Your task to perform on an android device: choose inbox layout in the gmail app Image 0: 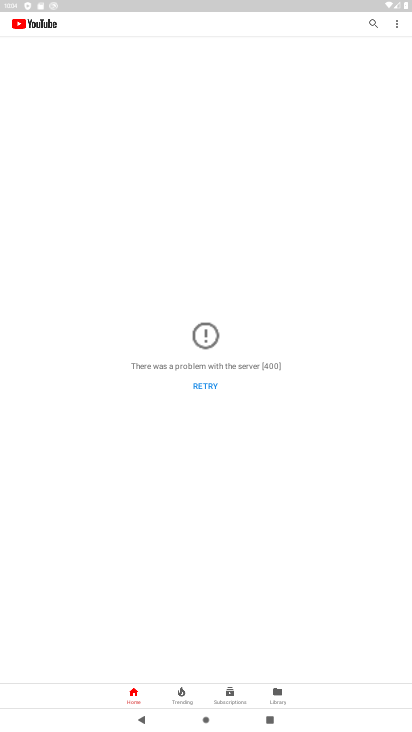
Step 0: press home button
Your task to perform on an android device: choose inbox layout in the gmail app Image 1: 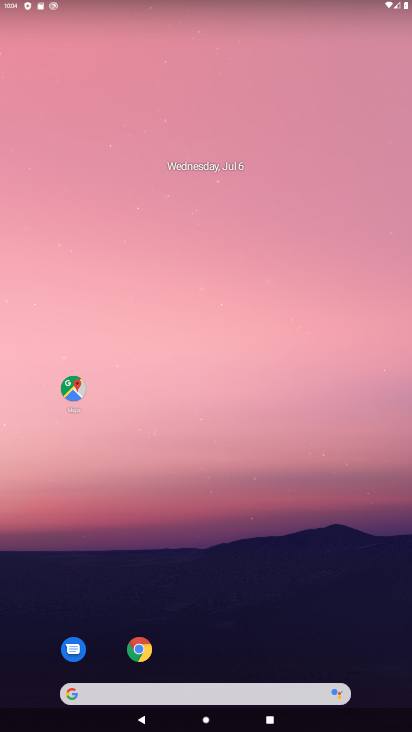
Step 1: click (341, 367)
Your task to perform on an android device: choose inbox layout in the gmail app Image 2: 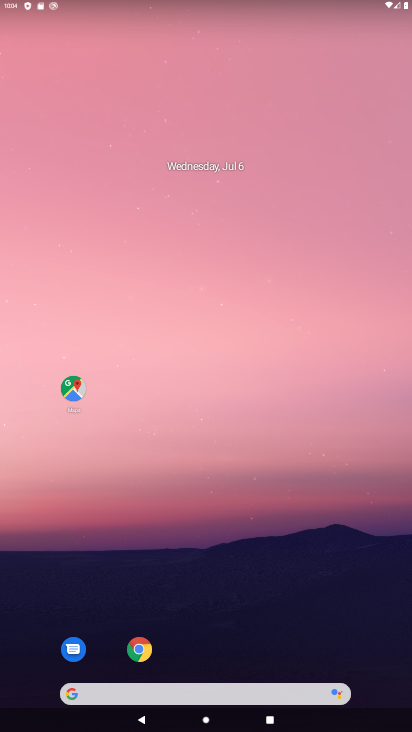
Step 2: drag from (365, 387) to (266, 85)
Your task to perform on an android device: choose inbox layout in the gmail app Image 3: 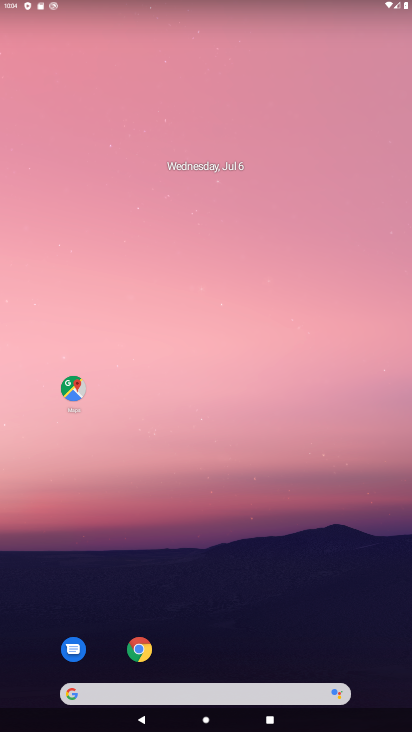
Step 3: drag from (364, 493) to (246, 45)
Your task to perform on an android device: choose inbox layout in the gmail app Image 4: 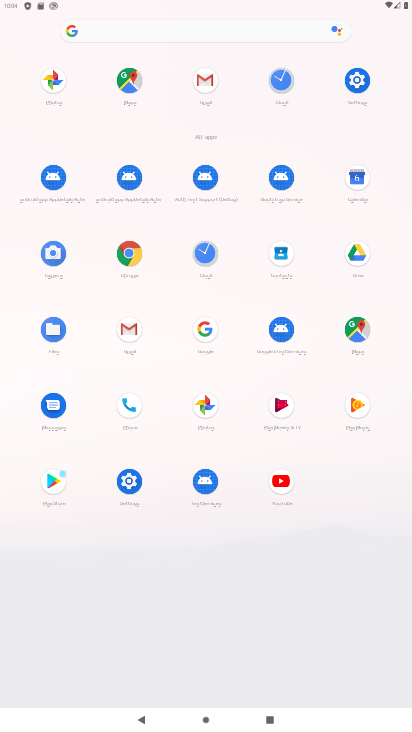
Step 4: click (216, 77)
Your task to perform on an android device: choose inbox layout in the gmail app Image 5: 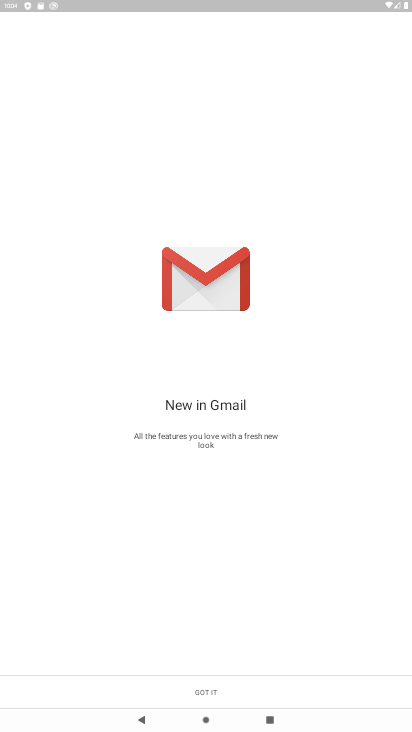
Step 5: click (214, 690)
Your task to perform on an android device: choose inbox layout in the gmail app Image 6: 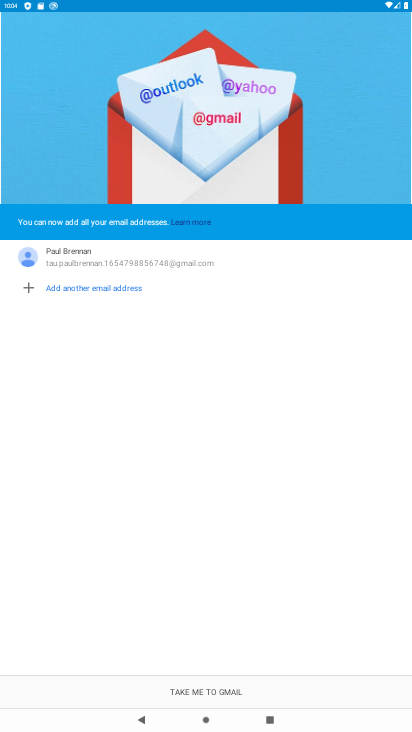
Step 6: click (214, 690)
Your task to perform on an android device: choose inbox layout in the gmail app Image 7: 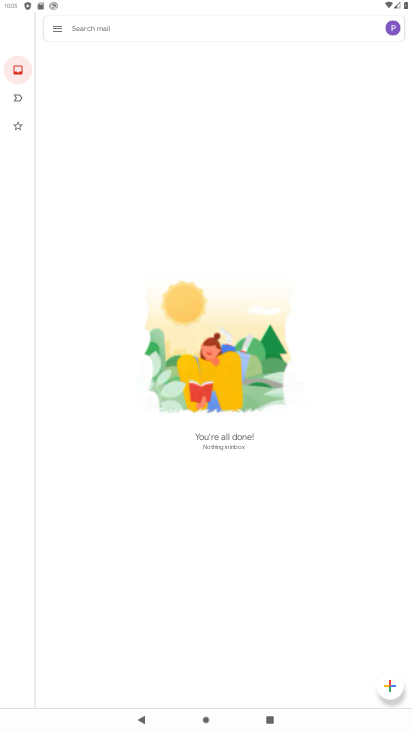
Step 7: click (62, 23)
Your task to perform on an android device: choose inbox layout in the gmail app Image 8: 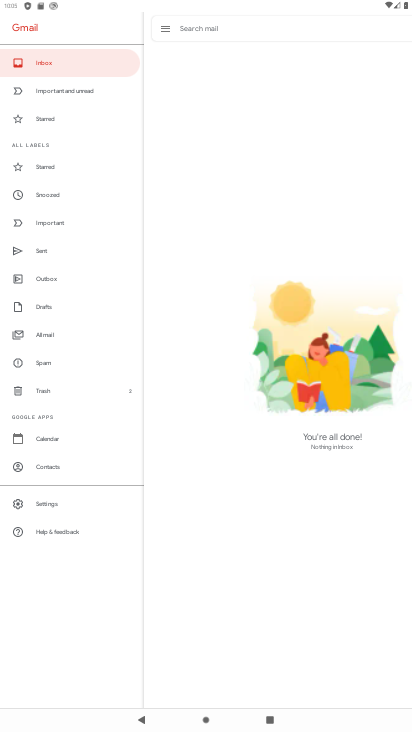
Step 8: click (40, 497)
Your task to perform on an android device: choose inbox layout in the gmail app Image 9: 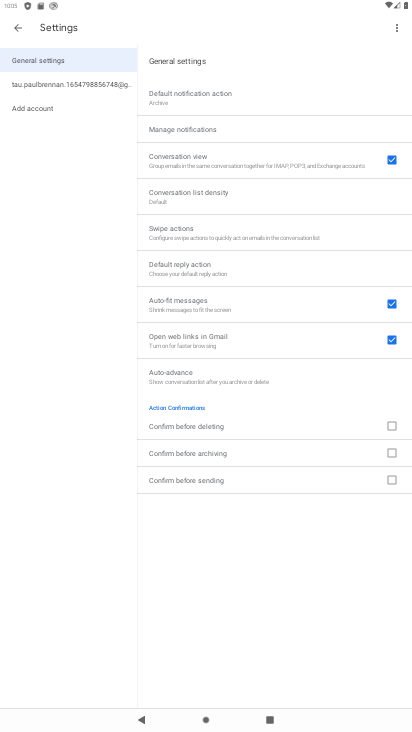
Step 9: click (80, 82)
Your task to perform on an android device: choose inbox layout in the gmail app Image 10: 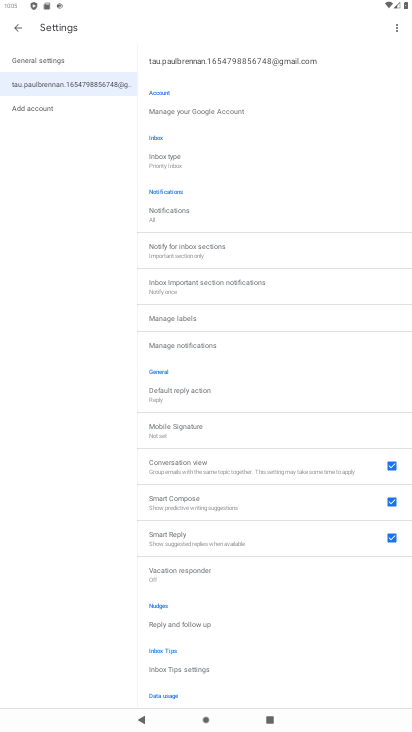
Step 10: click (28, 61)
Your task to perform on an android device: choose inbox layout in the gmail app Image 11: 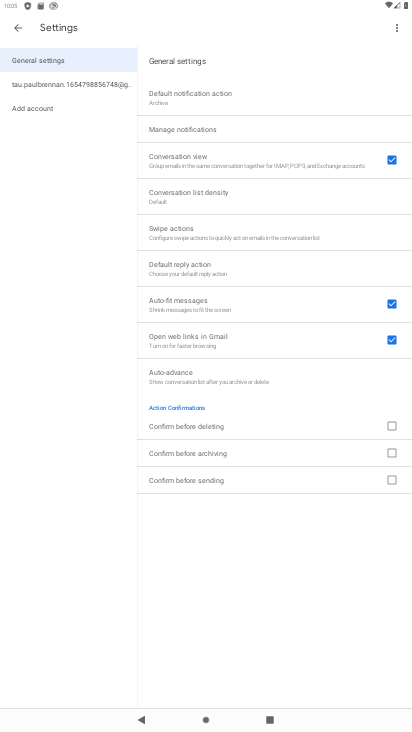
Step 11: click (30, 84)
Your task to perform on an android device: choose inbox layout in the gmail app Image 12: 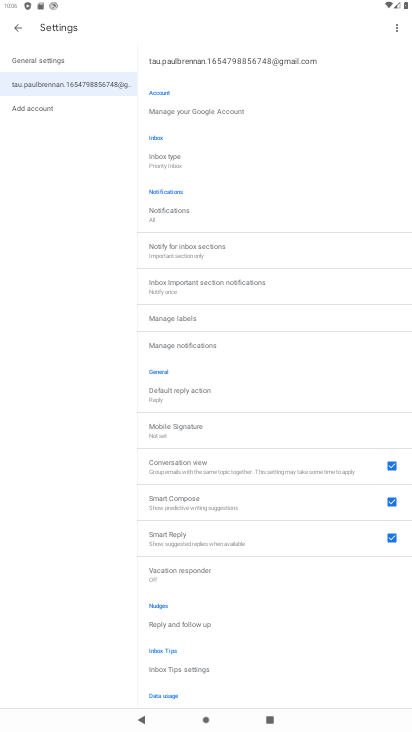
Step 12: click (161, 162)
Your task to perform on an android device: choose inbox layout in the gmail app Image 13: 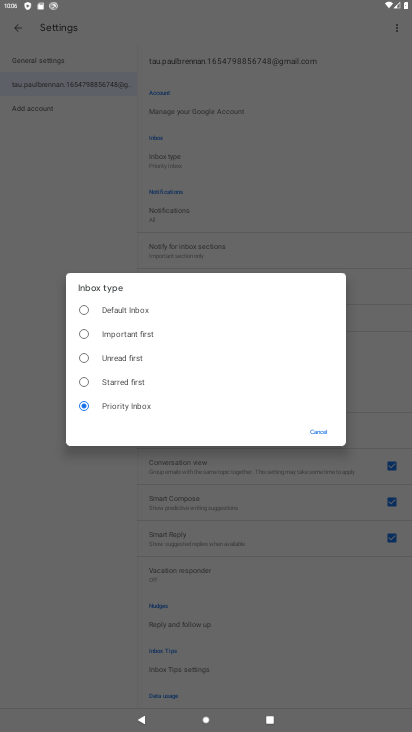
Step 13: click (86, 382)
Your task to perform on an android device: choose inbox layout in the gmail app Image 14: 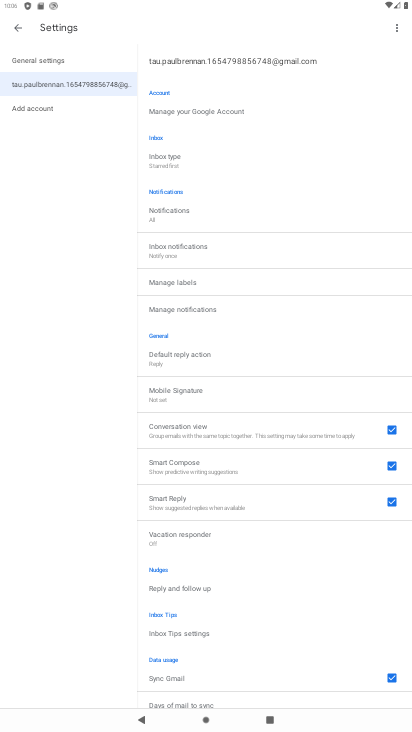
Step 14: task complete